Your task to perform on an android device: Go to wifi settings Image 0: 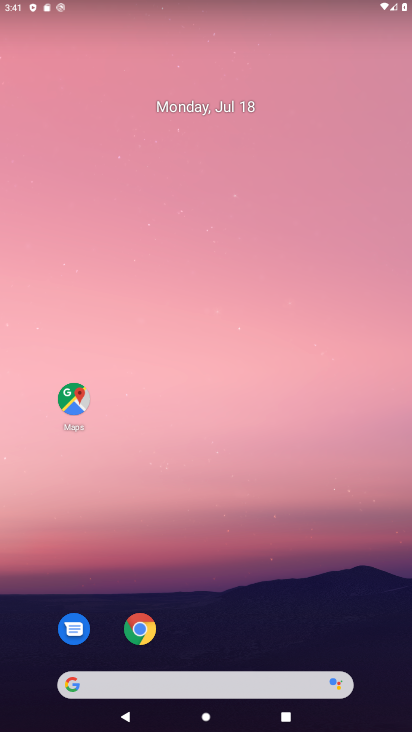
Step 0: drag from (214, 644) to (242, 120)
Your task to perform on an android device: Go to wifi settings Image 1: 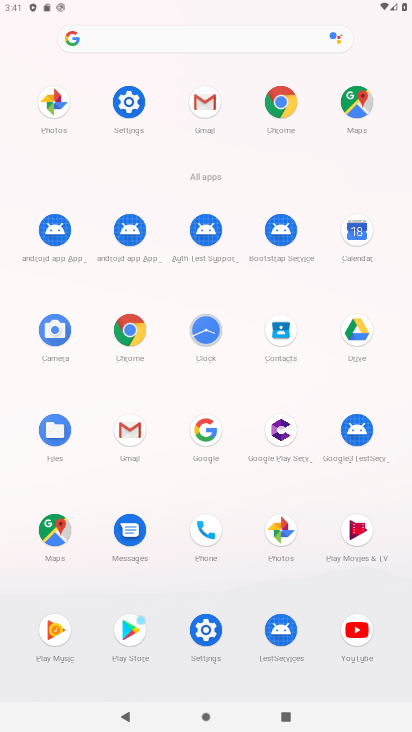
Step 1: click (198, 624)
Your task to perform on an android device: Go to wifi settings Image 2: 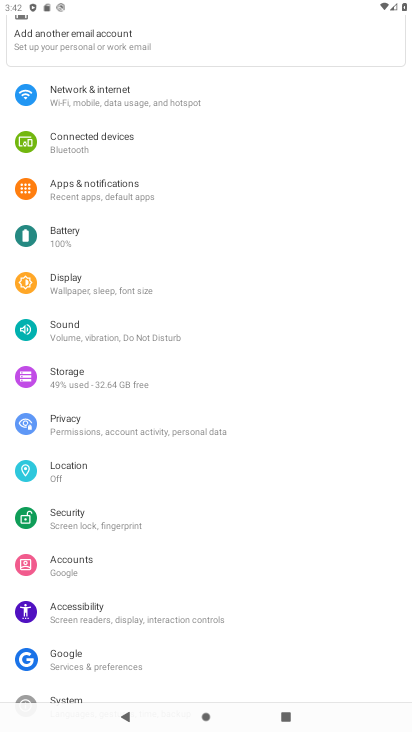
Step 2: click (153, 108)
Your task to perform on an android device: Go to wifi settings Image 3: 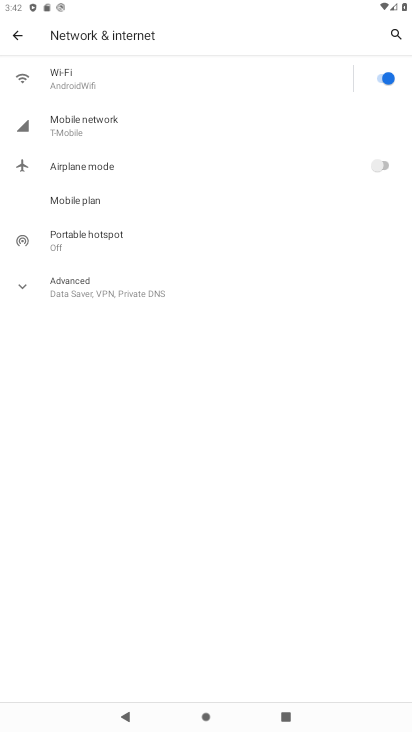
Step 3: click (133, 81)
Your task to perform on an android device: Go to wifi settings Image 4: 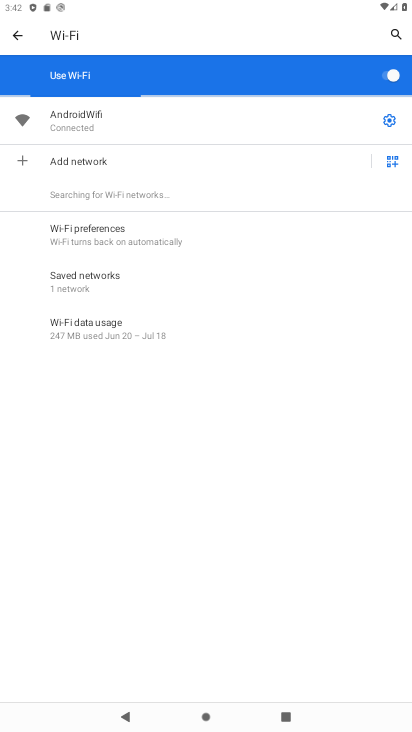
Step 4: task complete